Your task to perform on an android device: Toggle the flashlight Image 0: 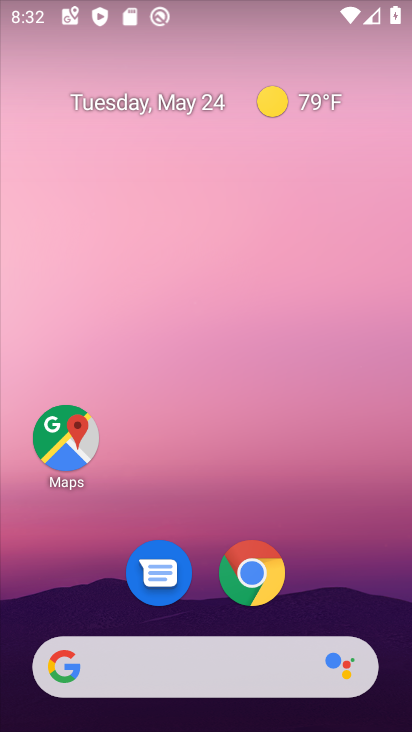
Step 0: click (223, 191)
Your task to perform on an android device: Toggle the flashlight Image 1: 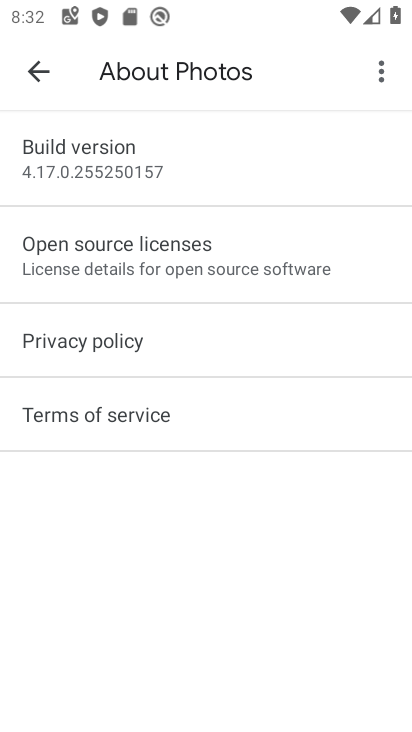
Step 1: task complete